Your task to perform on an android device: Find coffee shops on Maps Image 0: 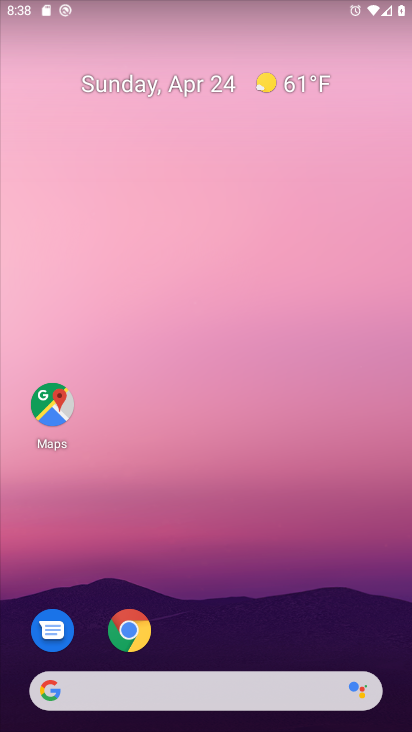
Step 0: drag from (346, 563) to (352, 92)
Your task to perform on an android device: Find coffee shops on Maps Image 1: 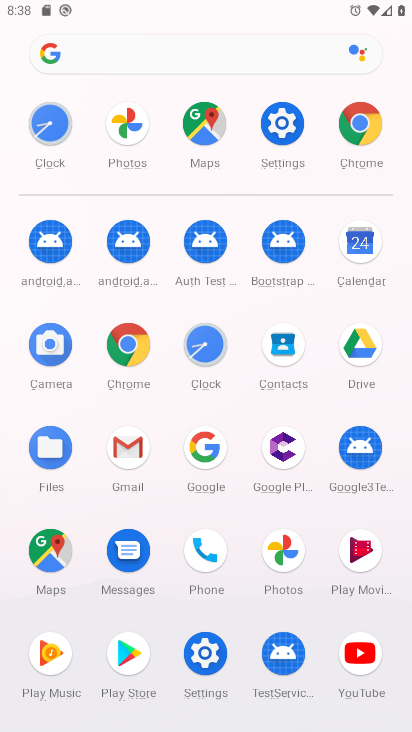
Step 1: click (206, 134)
Your task to perform on an android device: Find coffee shops on Maps Image 2: 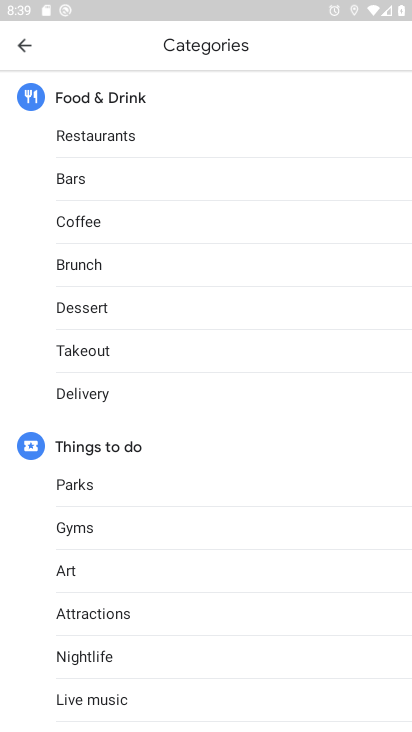
Step 2: click (27, 48)
Your task to perform on an android device: Find coffee shops on Maps Image 3: 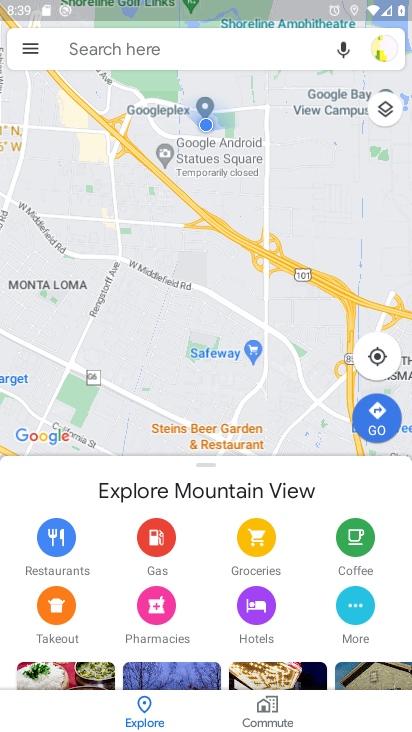
Step 3: click (117, 47)
Your task to perform on an android device: Find coffee shops on Maps Image 4: 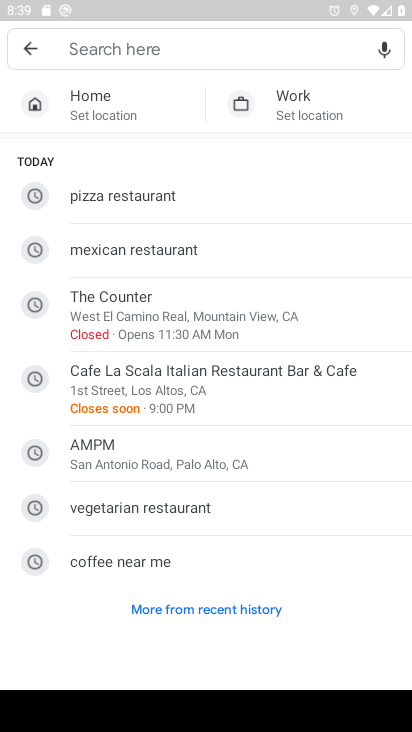
Step 4: type "coffee"
Your task to perform on an android device: Find coffee shops on Maps Image 5: 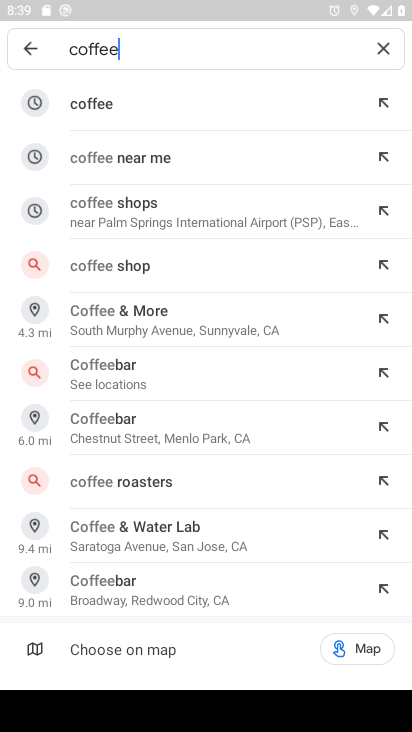
Step 5: click (183, 105)
Your task to perform on an android device: Find coffee shops on Maps Image 6: 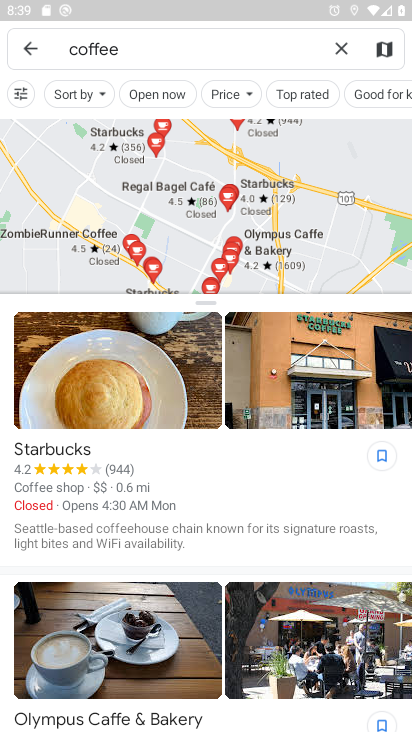
Step 6: task complete